Your task to perform on an android device: Go to privacy settings Image 0: 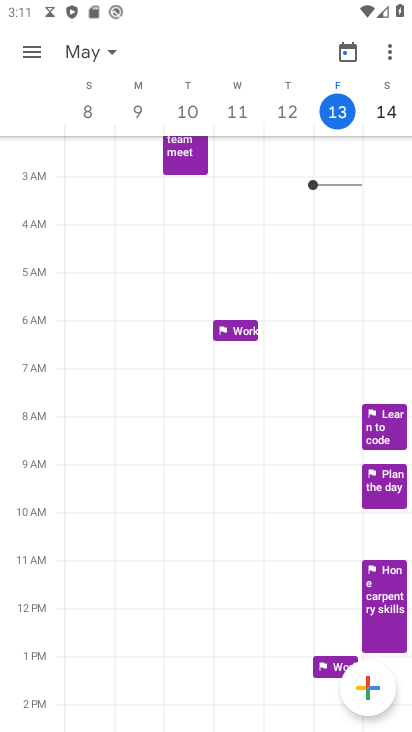
Step 0: press home button
Your task to perform on an android device: Go to privacy settings Image 1: 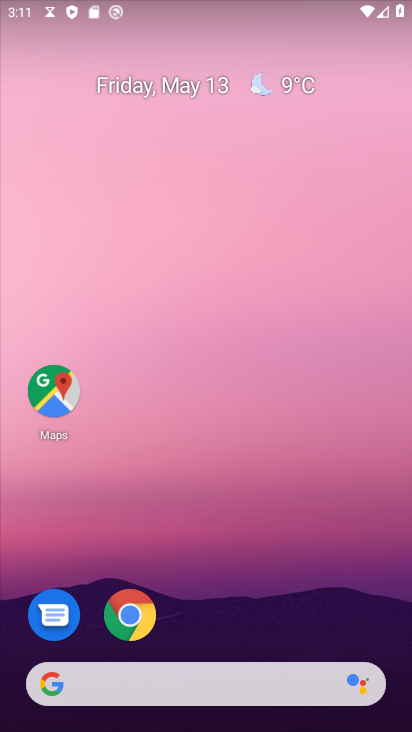
Step 1: drag from (188, 723) to (181, 244)
Your task to perform on an android device: Go to privacy settings Image 2: 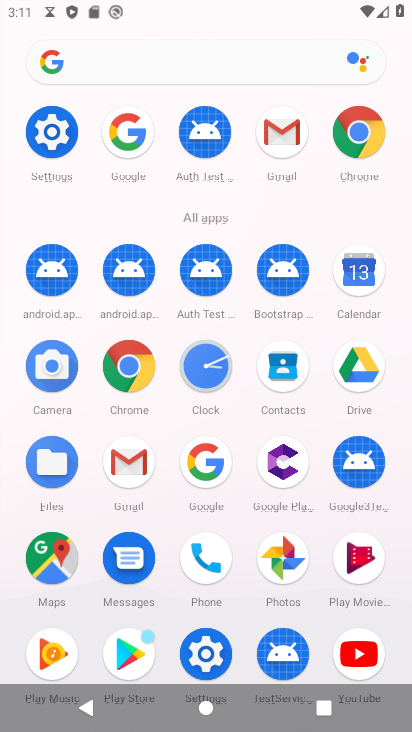
Step 2: click (52, 133)
Your task to perform on an android device: Go to privacy settings Image 3: 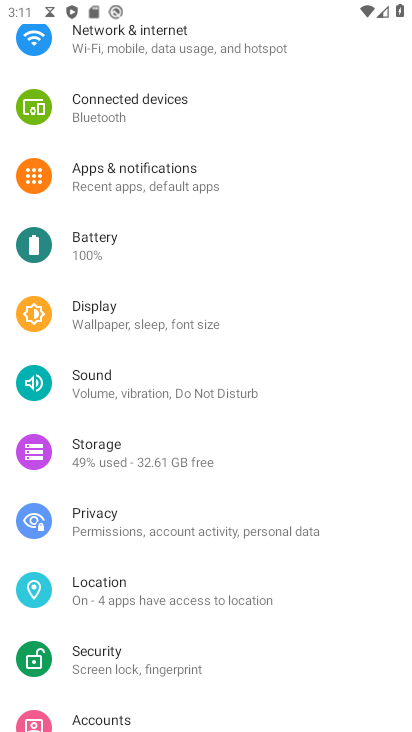
Step 3: click (114, 521)
Your task to perform on an android device: Go to privacy settings Image 4: 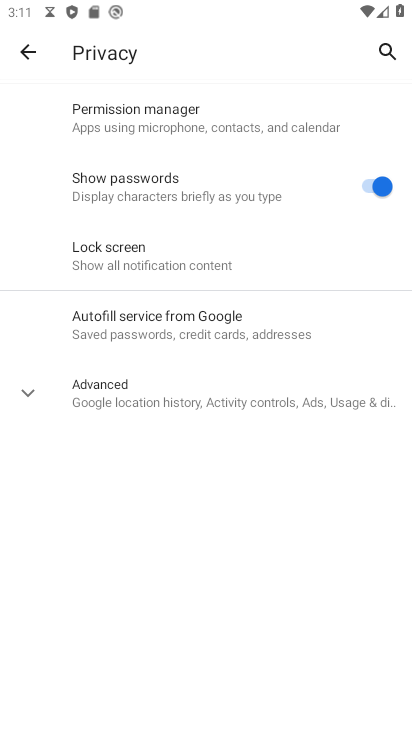
Step 4: task complete